Your task to perform on an android device: Open Google Chrome and click the shortcut for Amazon.com Image 0: 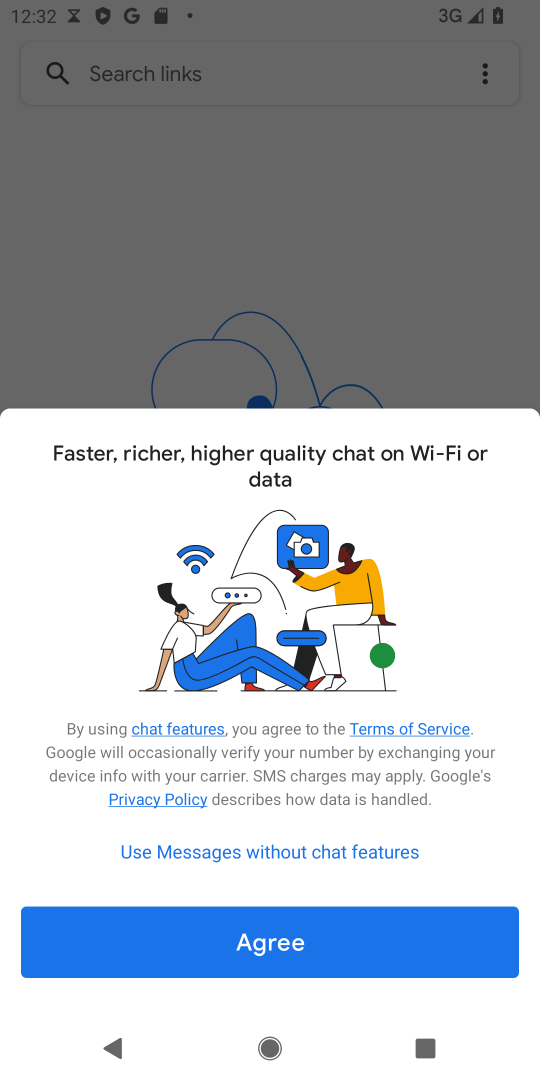
Step 0: press home button
Your task to perform on an android device: Open Google Chrome and click the shortcut for Amazon.com Image 1: 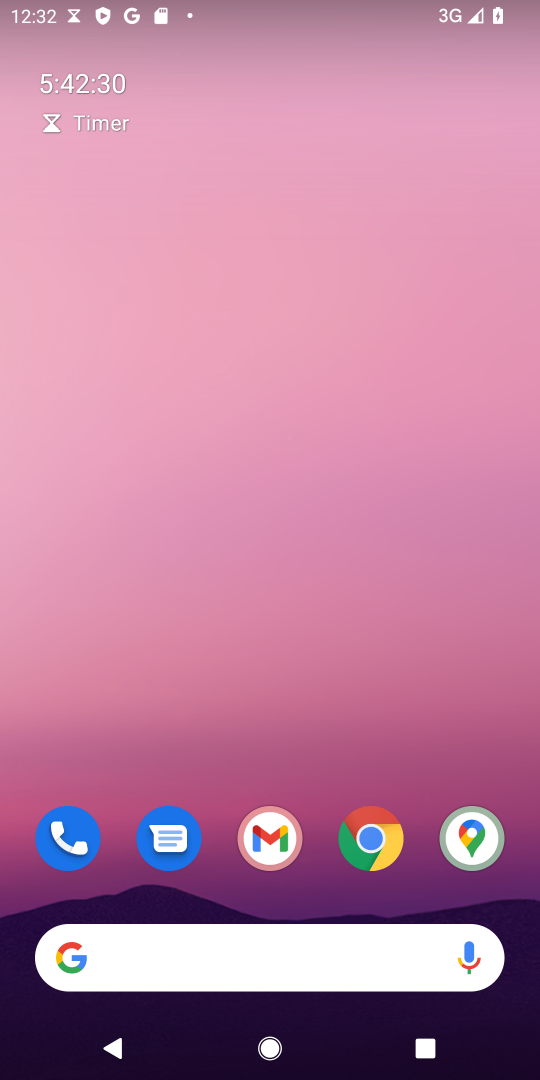
Step 1: click (366, 819)
Your task to perform on an android device: Open Google Chrome and click the shortcut for Amazon.com Image 2: 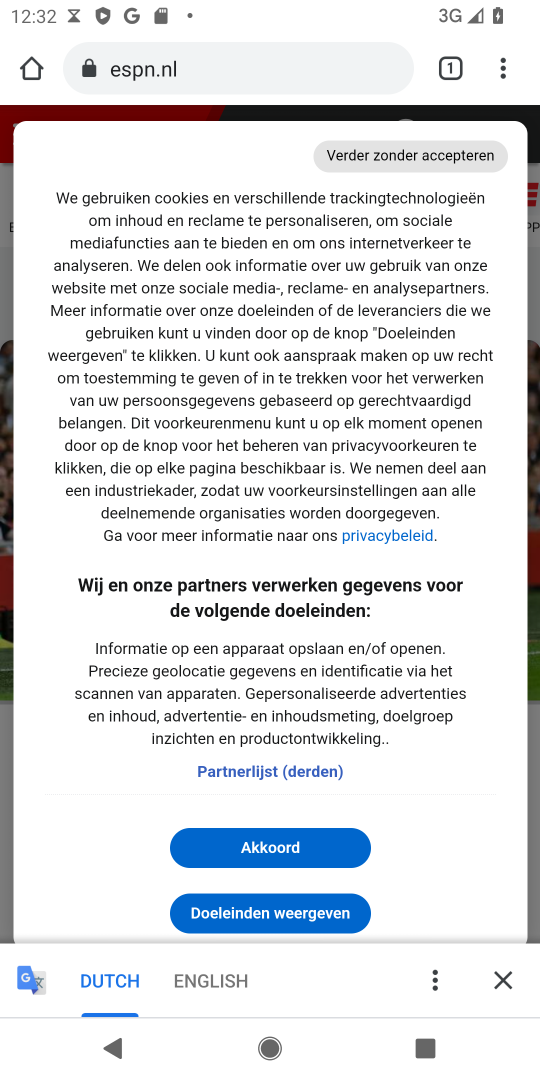
Step 2: click (498, 52)
Your task to perform on an android device: Open Google Chrome and click the shortcut for Amazon.com Image 3: 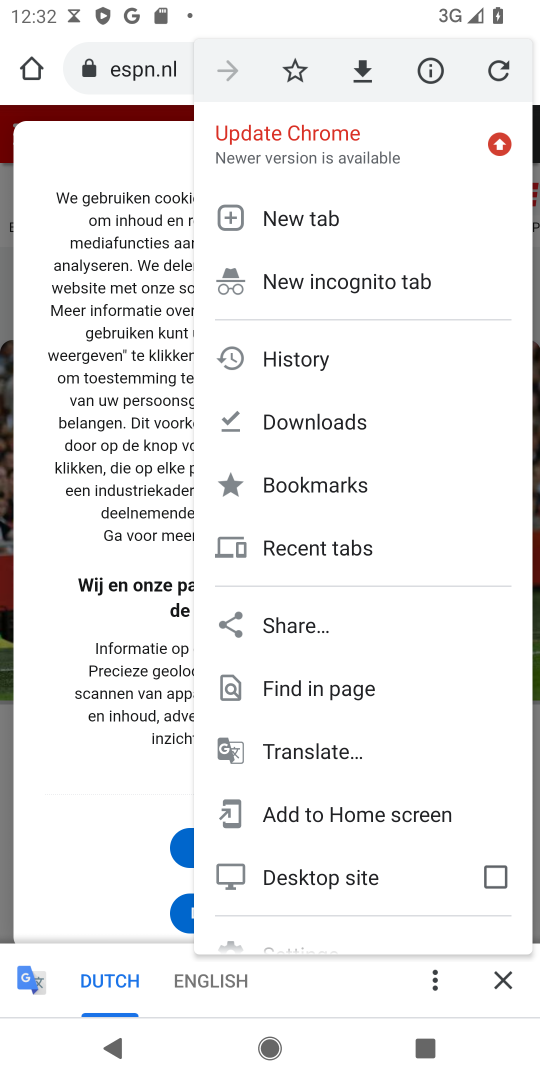
Step 3: click (327, 214)
Your task to perform on an android device: Open Google Chrome and click the shortcut for Amazon.com Image 4: 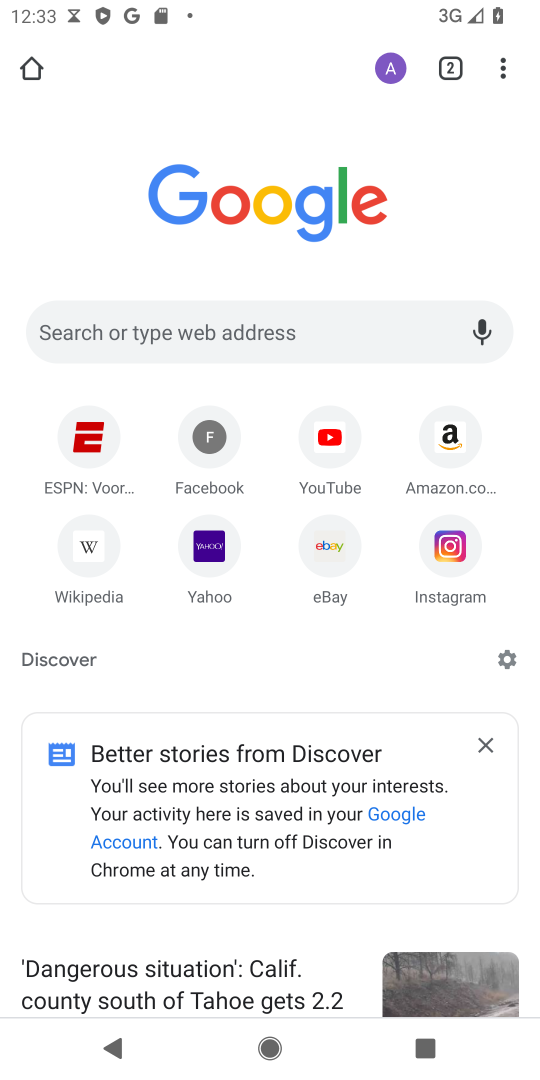
Step 4: click (452, 450)
Your task to perform on an android device: Open Google Chrome and click the shortcut for Amazon.com Image 5: 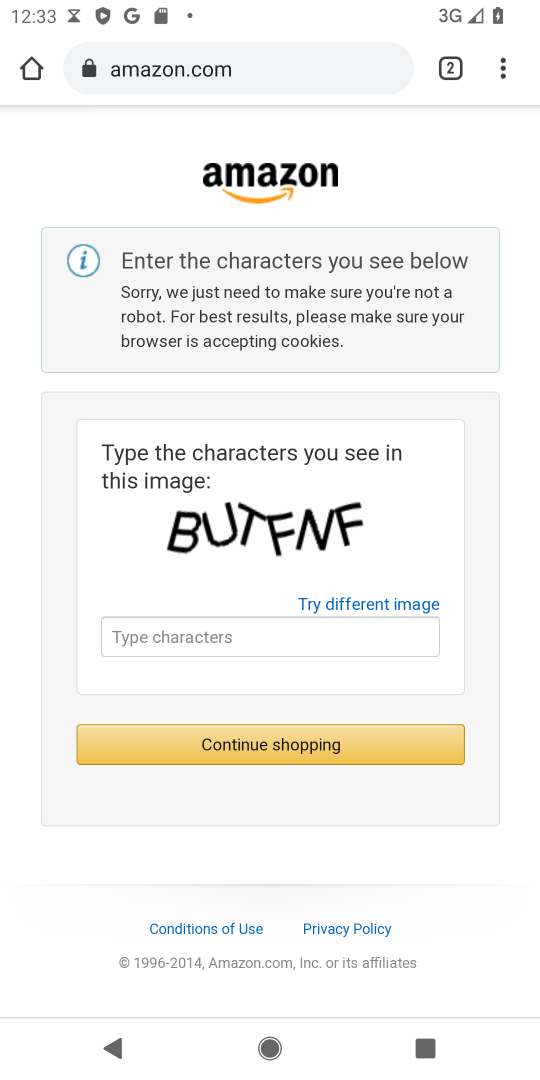
Step 5: task complete